Your task to perform on an android device: open app "LinkedIn" (install if not already installed) Image 0: 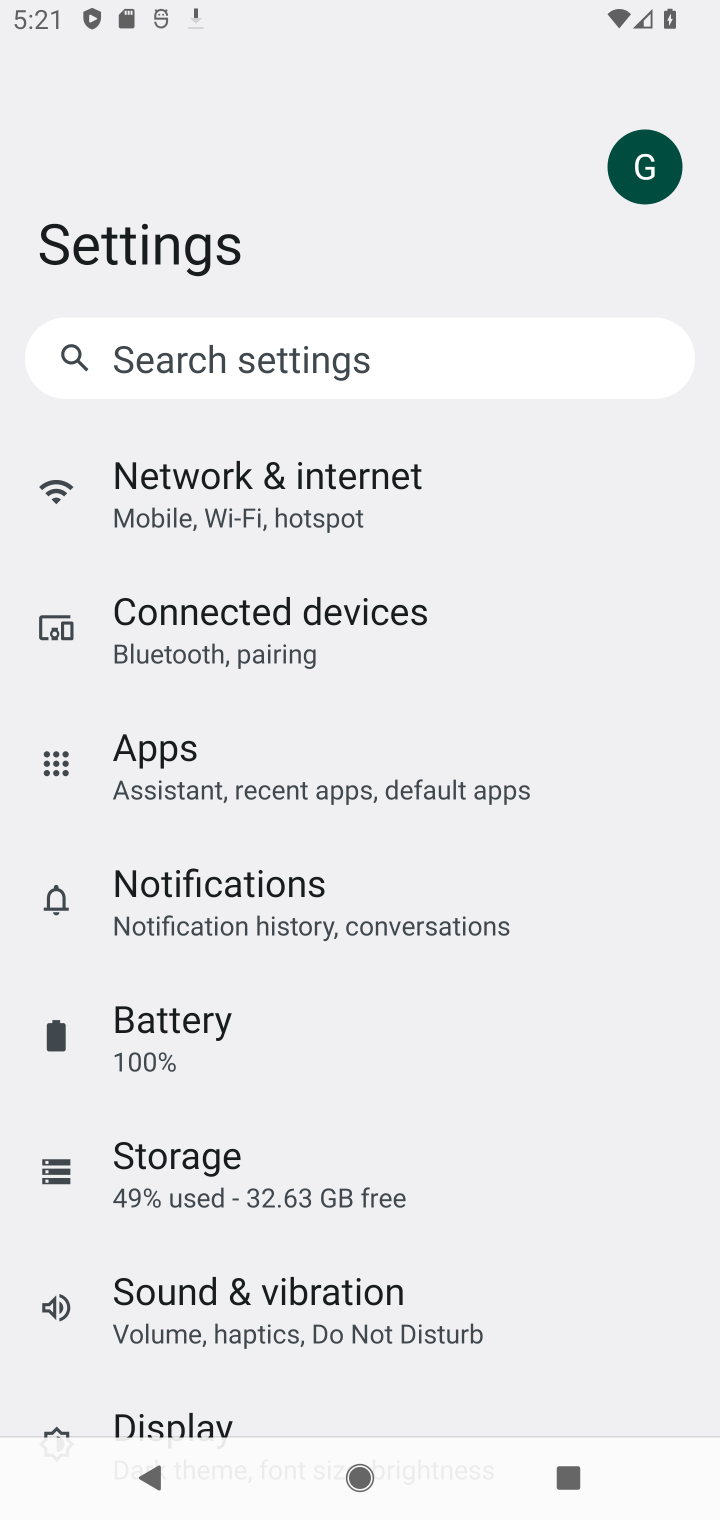
Step 0: press home button
Your task to perform on an android device: open app "LinkedIn" (install if not already installed) Image 1: 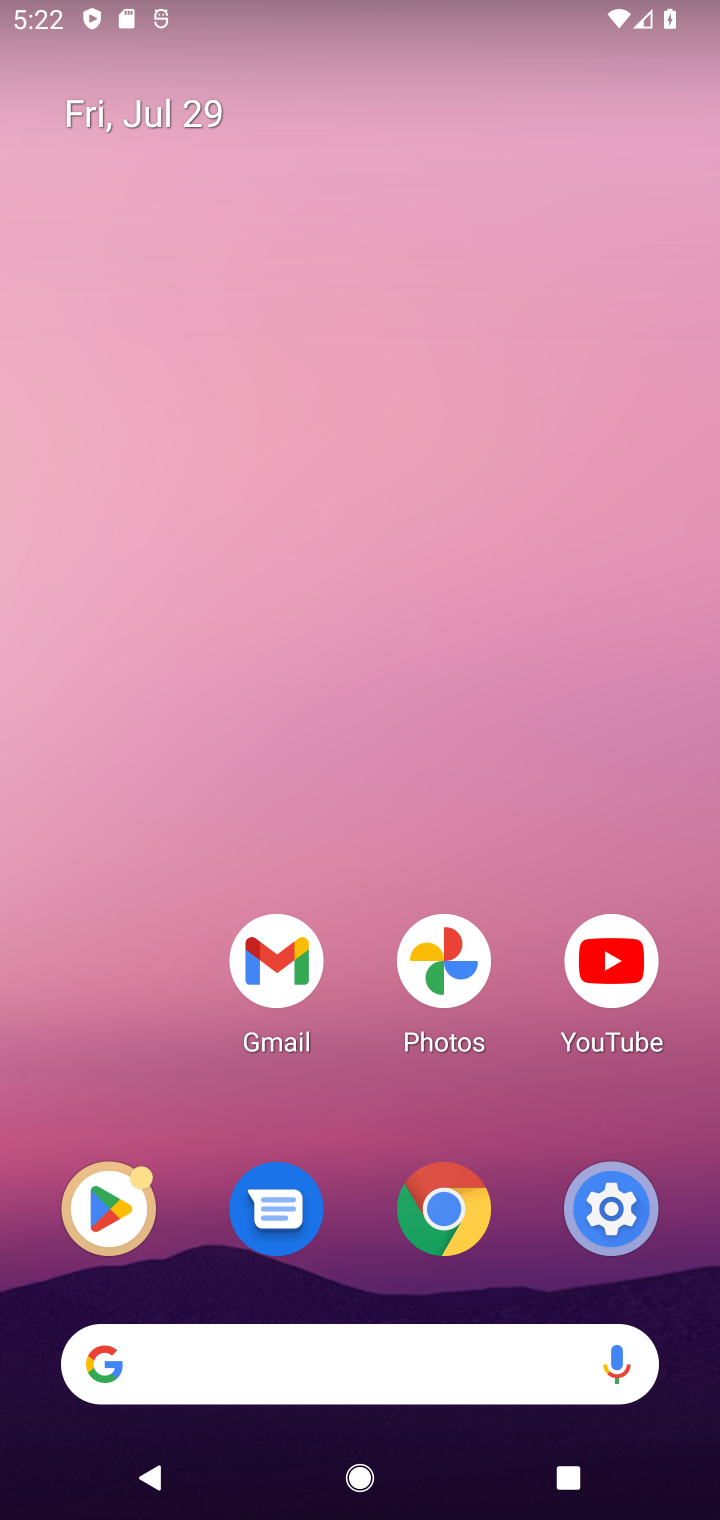
Step 1: click (106, 1225)
Your task to perform on an android device: open app "LinkedIn" (install if not already installed) Image 2: 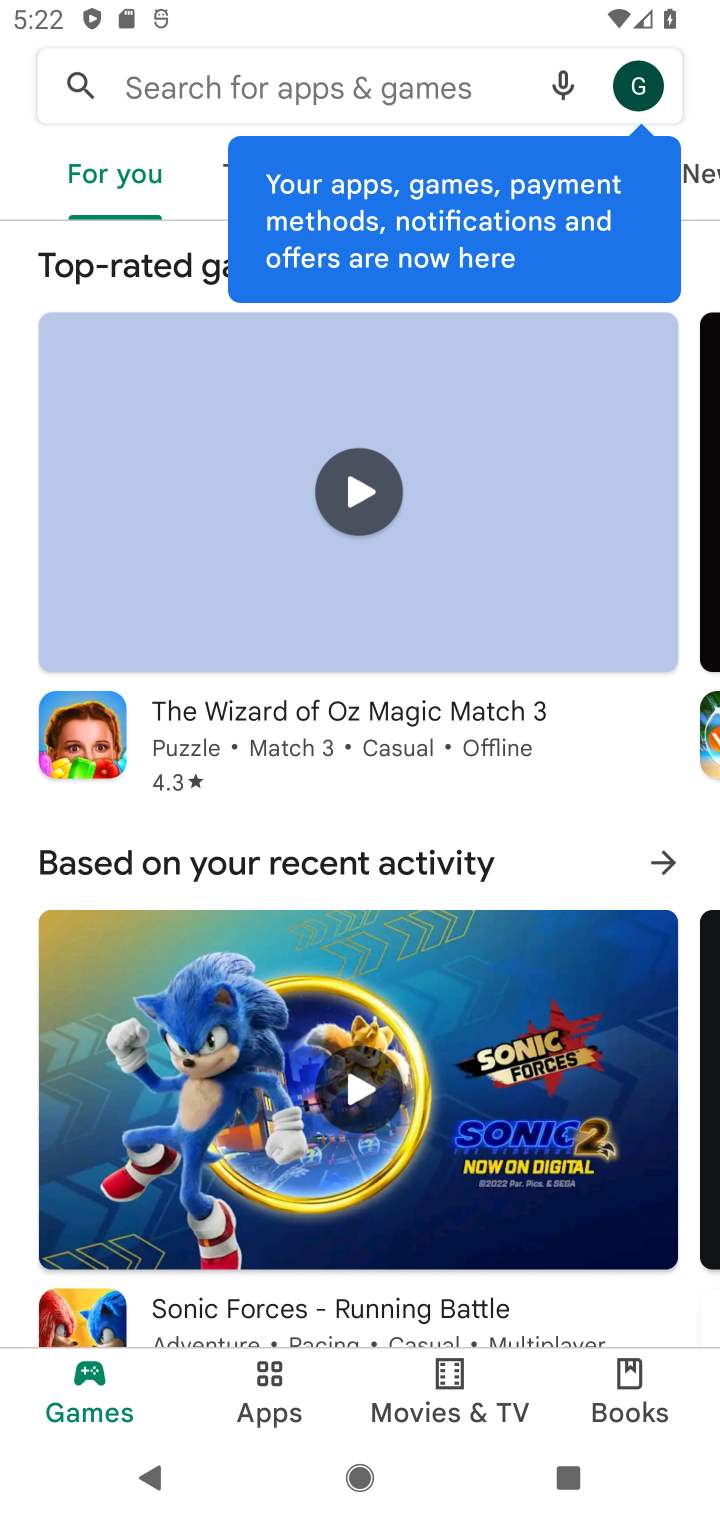
Step 2: click (233, 93)
Your task to perform on an android device: open app "LinkedIn" (install if not already installed) Image 3: 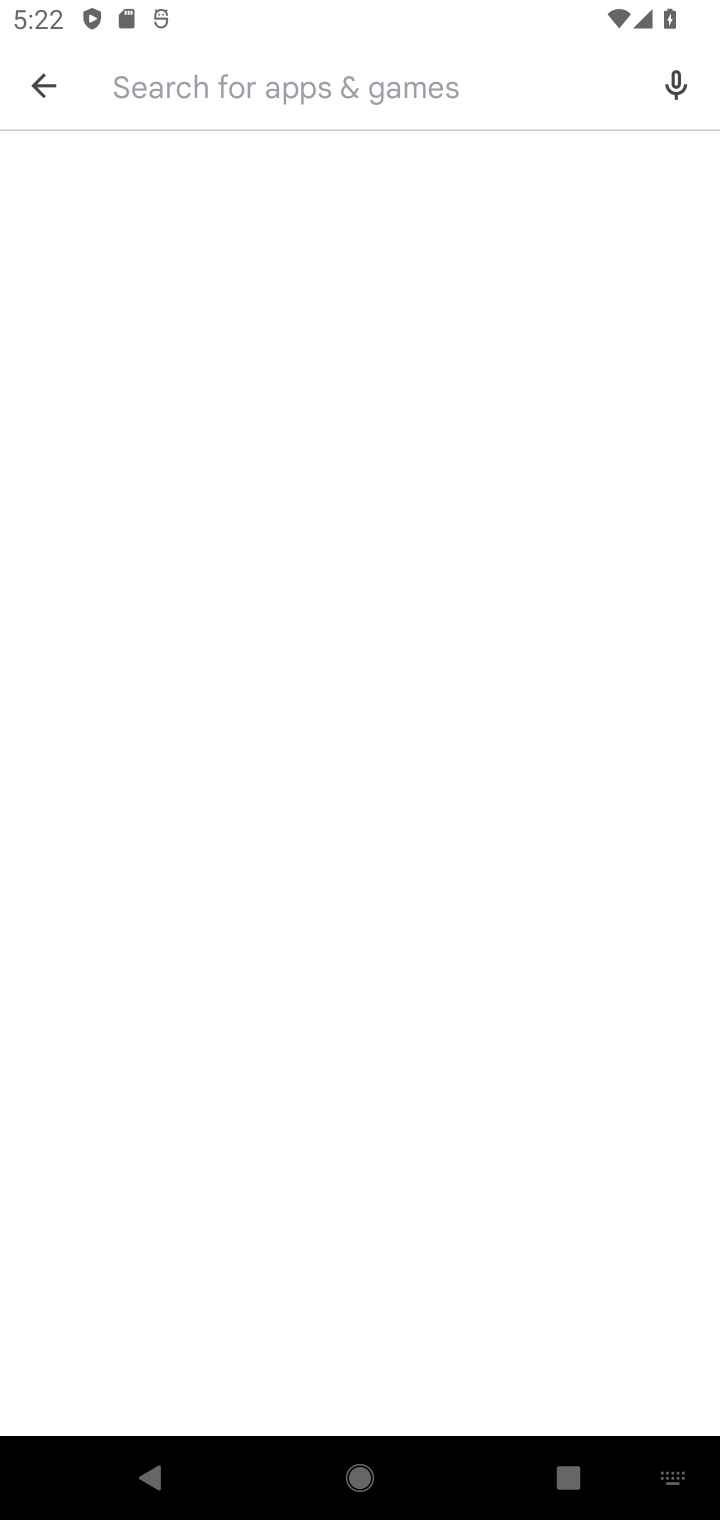
Step 3: type "LinkedIn"
Your task to perform on an android device: open app "LinkedIn" (install if not already installed) Image 4: 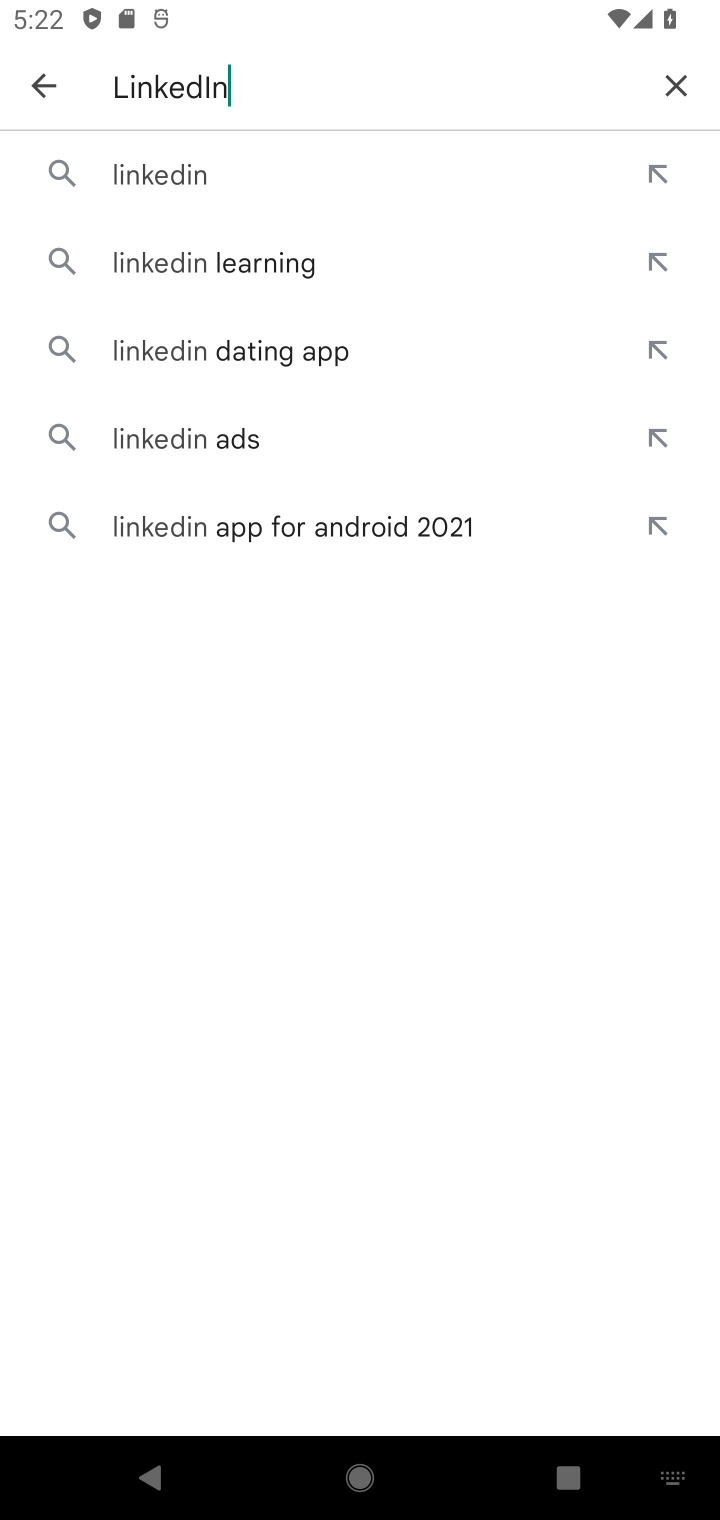
Step 4: click (188, 183)
Your task to perform on an android device: open app "LinkedIn" (install if not already installed) Image 5: 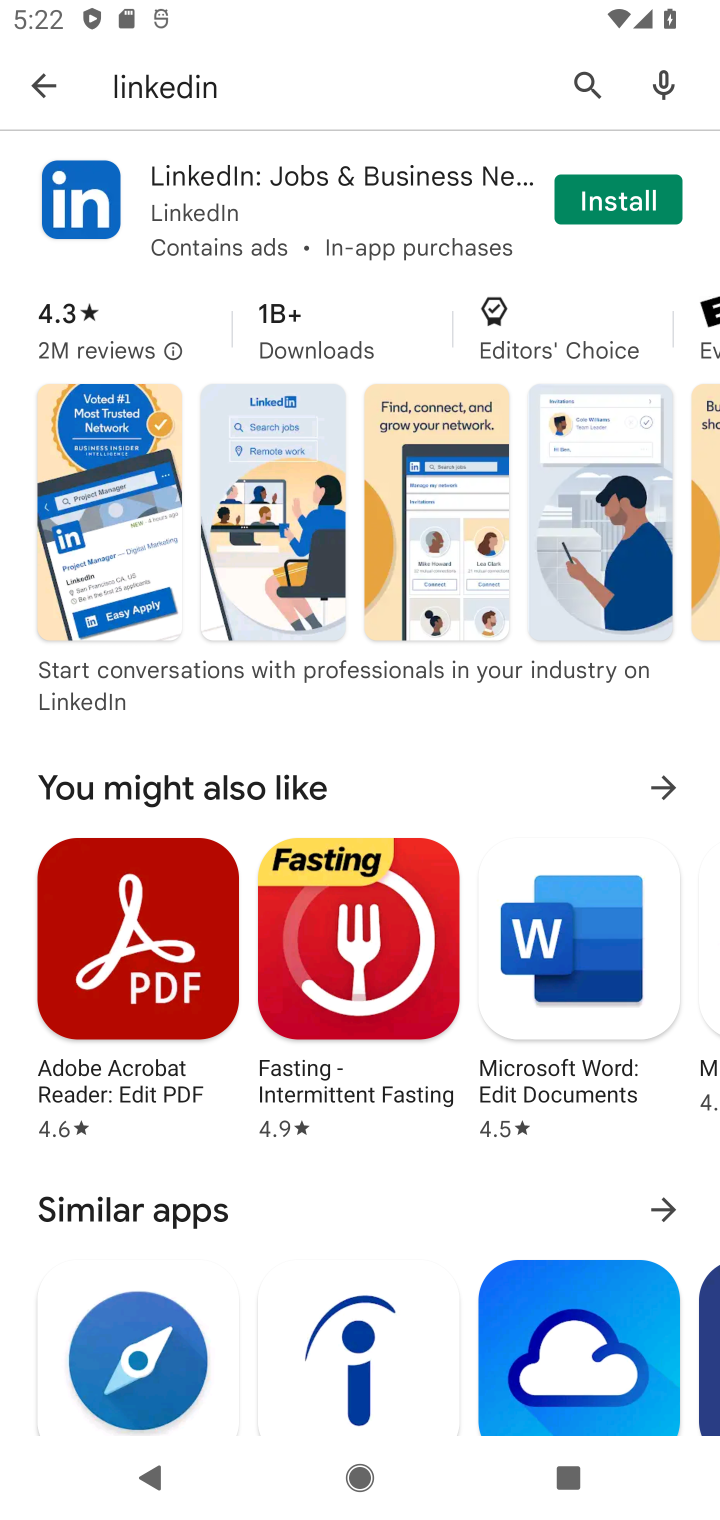
Step 5: click (595, 205)
Your task to perform on an android device: open app "LinkedIn" (install if not already installed) Image 6: 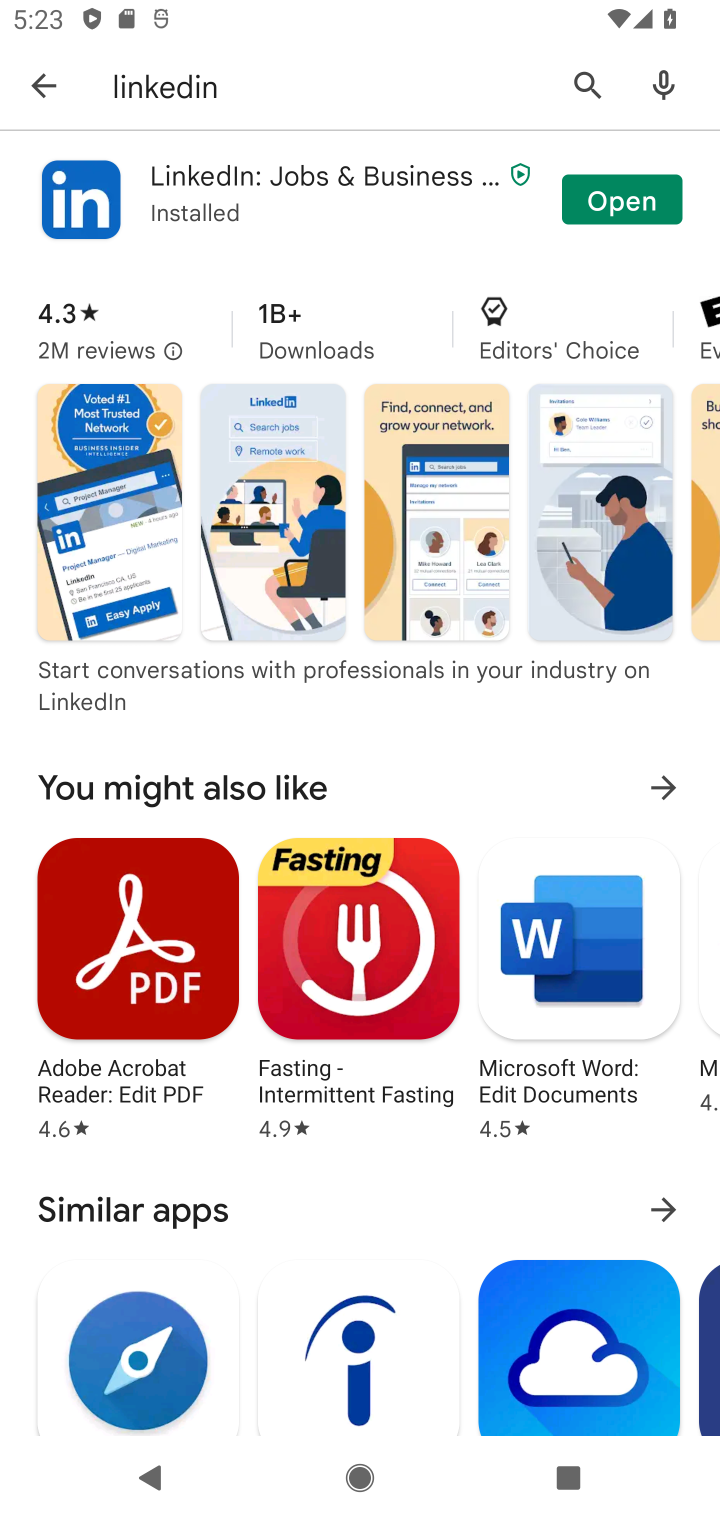
Step 6: click (631, 209)
Your task to perform on an android device: open app "LinkedIn" (install if not already installed) Image 7: 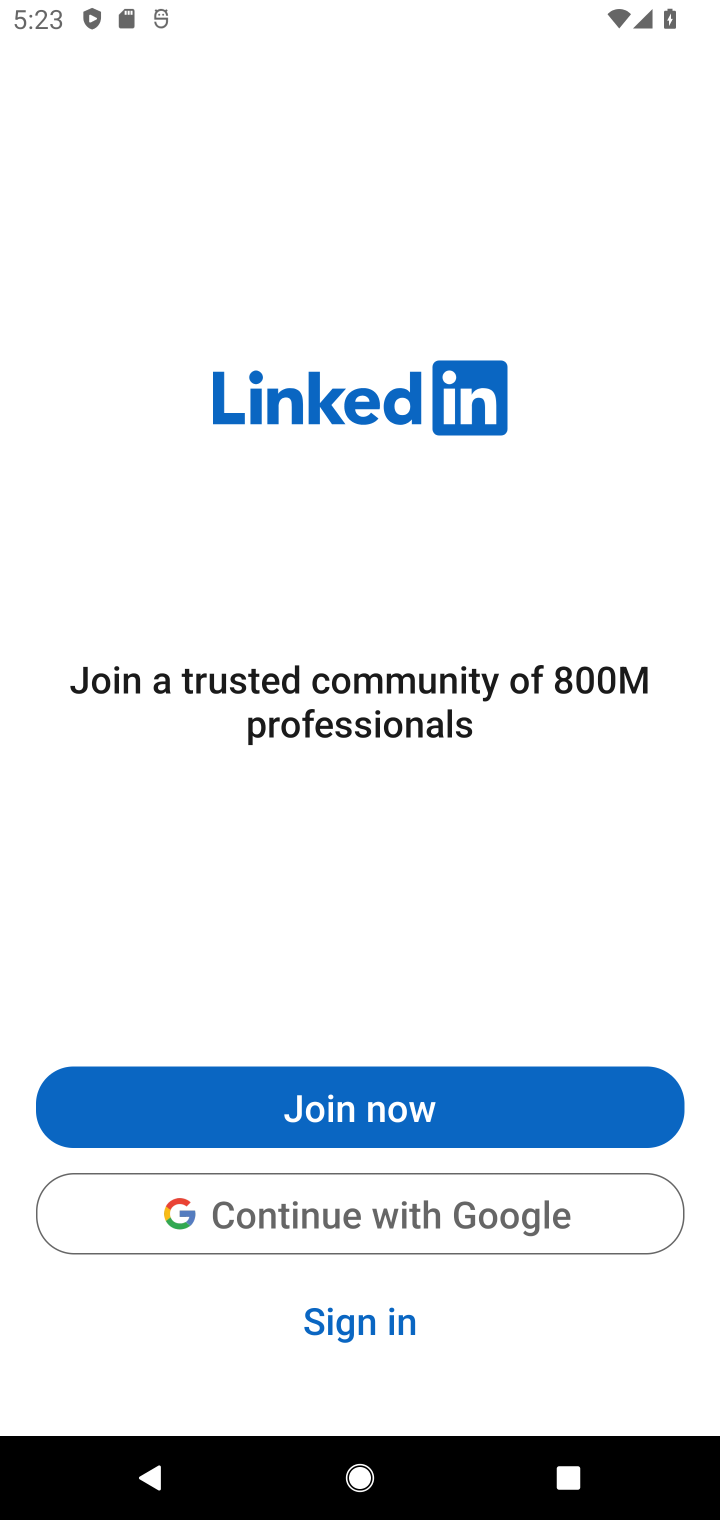
Step 7: task complete